Your task to perform on an android device: What's on my calendar tomorrow? Image 0: 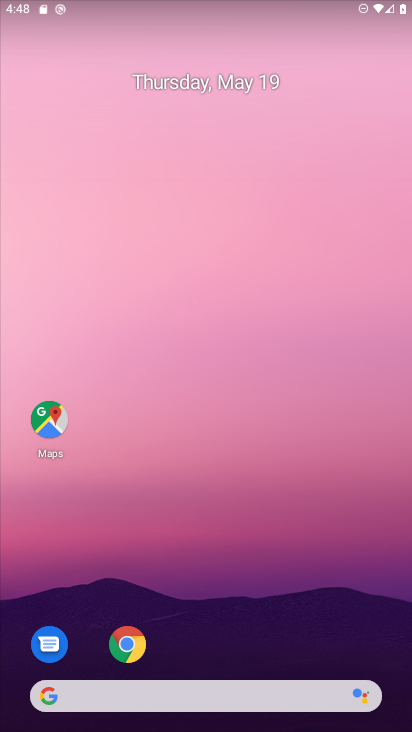
Step 0: drag from (311, 611) to (348, 3)
Your task to perform on an android device: What's on my calendar tomorrow? Image 1: 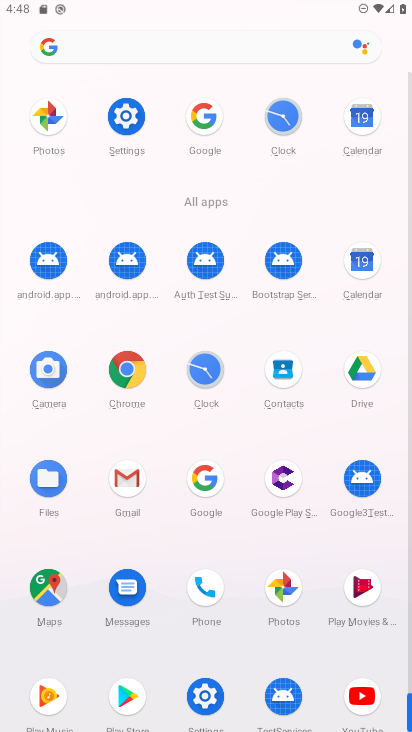
Step 1: click (376, 272)
Your task to perform on an android device: What's on my calendar tomorrow? Image 2: 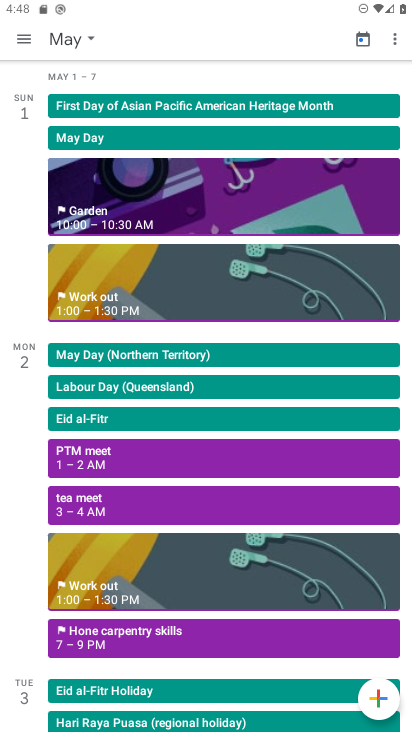
Step 2: task complete